Your task to perform on an android device: open sync settings in chrome Image 0: 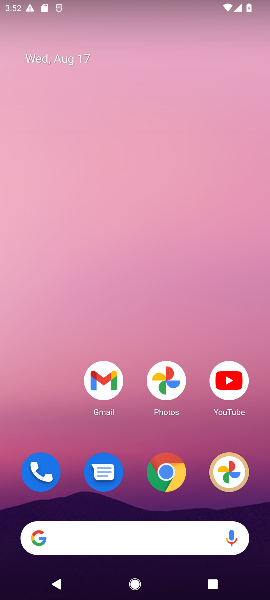
Step 0: click (170, 480)
Your task to perform on an android device: open sync settings in chrome Image 1: 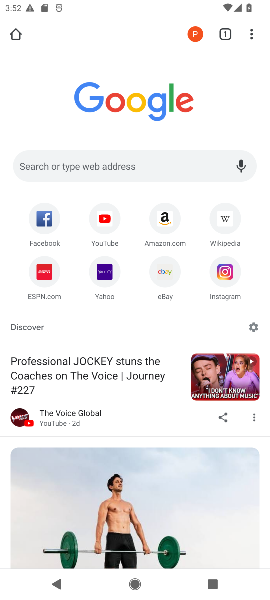
Step 1: click (253, 28)
Your task to perform on an android device: open sync settings in chrome Image 2: 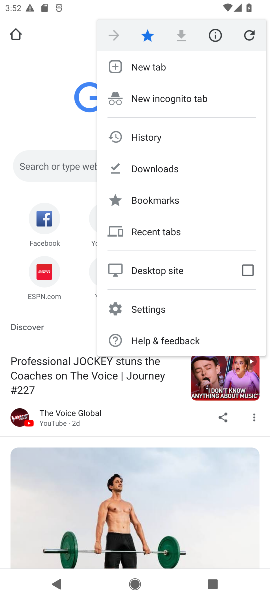
Step 2: click (150, 307)
Your task to perform on an android device: open sync settings in chrome Image 3: 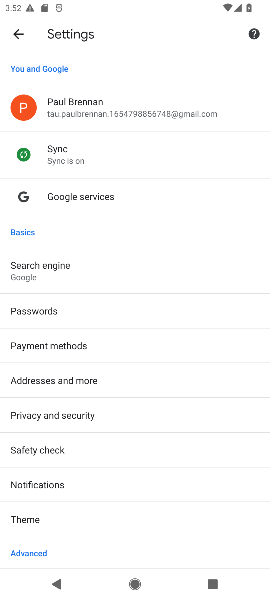
Step 3: click (117, 160)
Your task to perform on an android device: open sync settings in chrome Image 4: 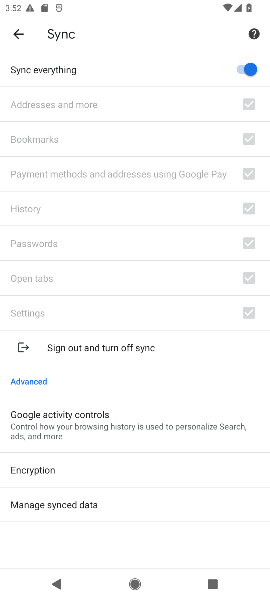
Step 4: task complete